Your task to perform on an android device: Open Google Chrome and click the shortcut for Amazon.com Image 0: 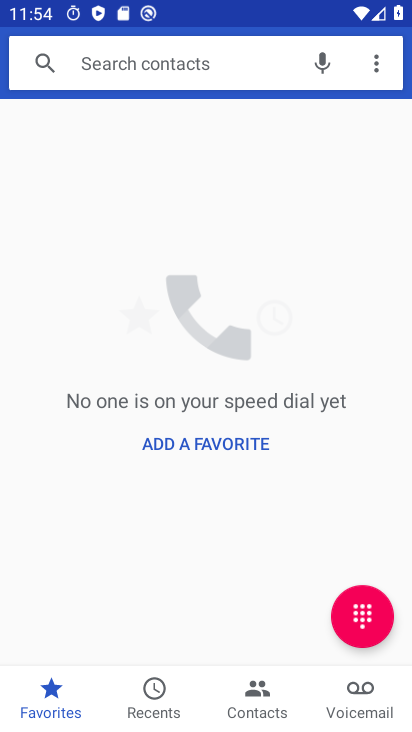
Step 0: press home button
Your task to perform on an android device: Open Google Chrome and click the shortcut for Amazon.com Image 1: 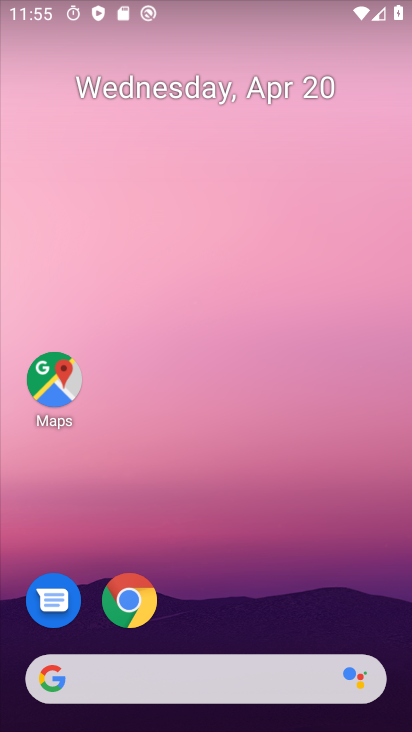
Step 1: drag from (361, 462) to (314, 99)
Your task to perform on an android device: Open Google Chrome and click the shortcut for Amazon.com Image 2: 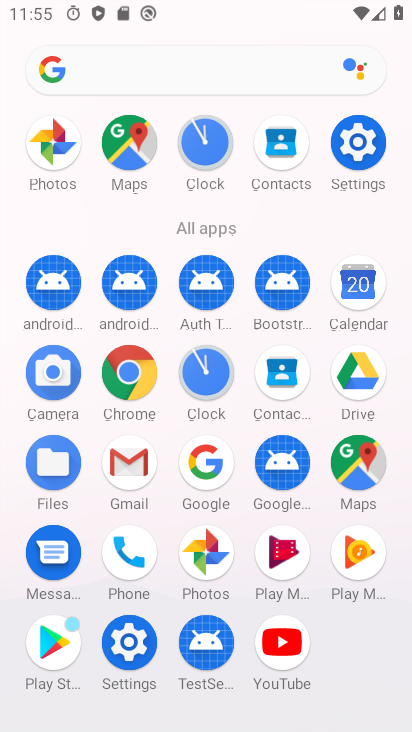
Step 2: click (126, 373)
Your task to perform on an android device: Open Google Chrome and click the shortcut for Amazon.com Image 3: 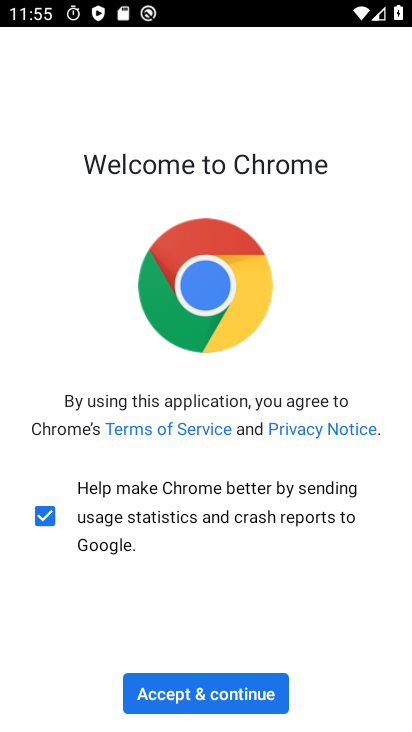
Step 3: click (233, 696)
Your task to perform on an android device: Open Google Chrome and click the shortcut for Amazon.com Image 4: 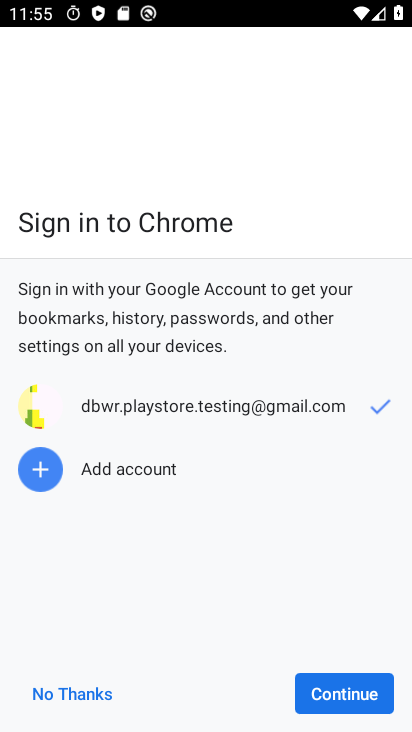
Step 4: click (331, 691)
Your task to perform on an android device: Open Google Chrome and click the shortcut for Amazon.com Image 5: 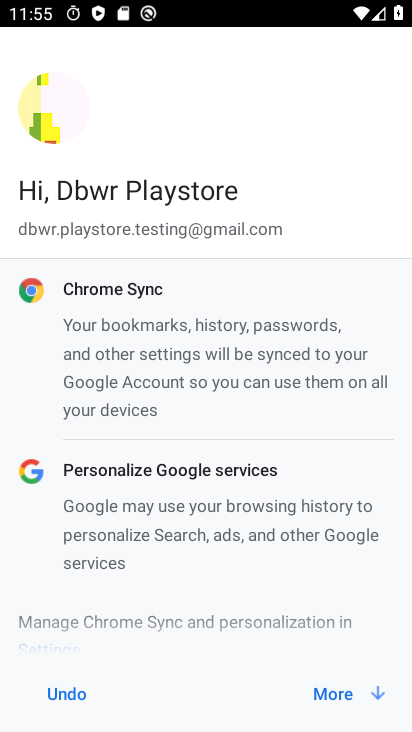
Step 5: click (331, 691)
Your task to perform on an android device: Open Google Chrome and click the shortcut for Amazon.com Image 6: 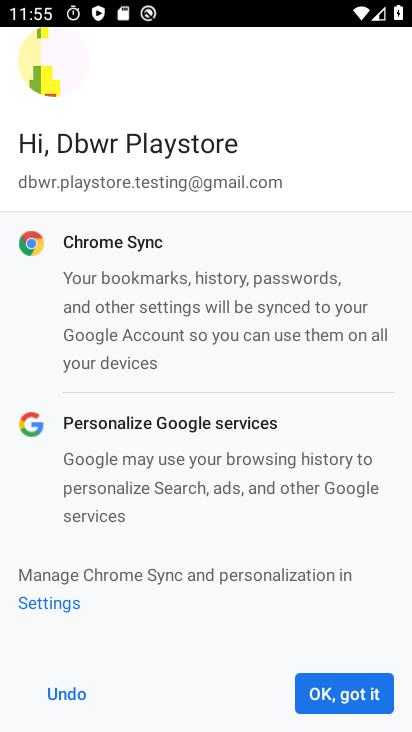
Step 6: click (331, 691)
Your task to perform on an android device: Open Google Chrome and click the shortcut for Amazon.com Image 7: 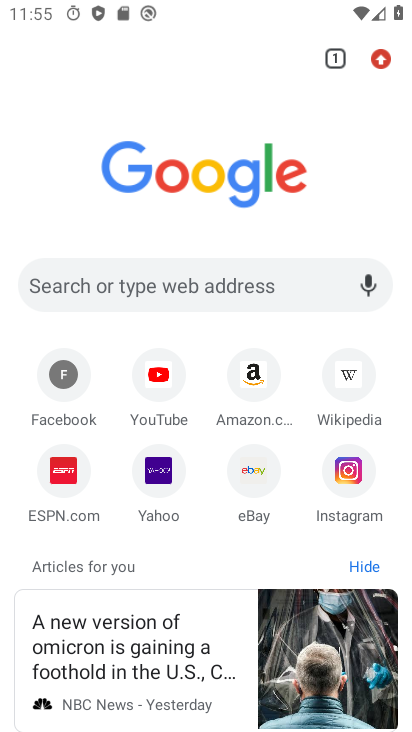
Step 7: click (228, 283)
Your task to perform on an android device: Open Google Chrome and click the shortcut for Amazon.com Image 8: 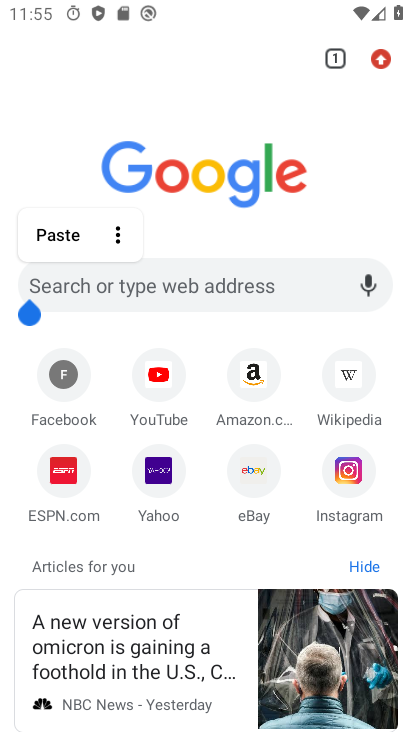
Step 8: click (211, 292)
Your task to perform on an android device: Open Google Chrome and click the shortcut for Amazon.com Image 9: 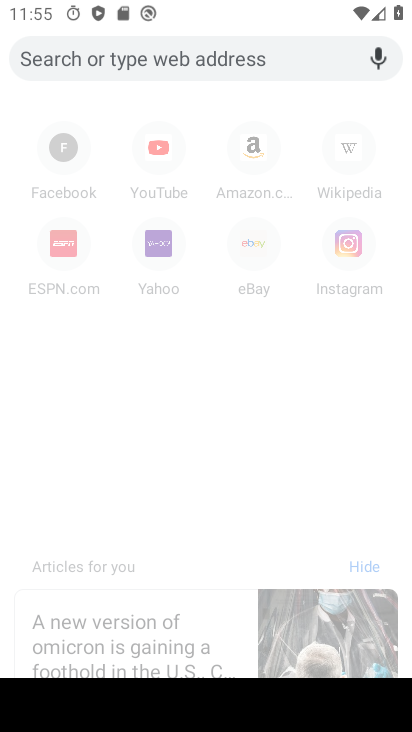
Step 9: click (257, 153)
Your task to perform on an android device: Open Google Chrome and click the shortcut for Amazon.com Image 10: 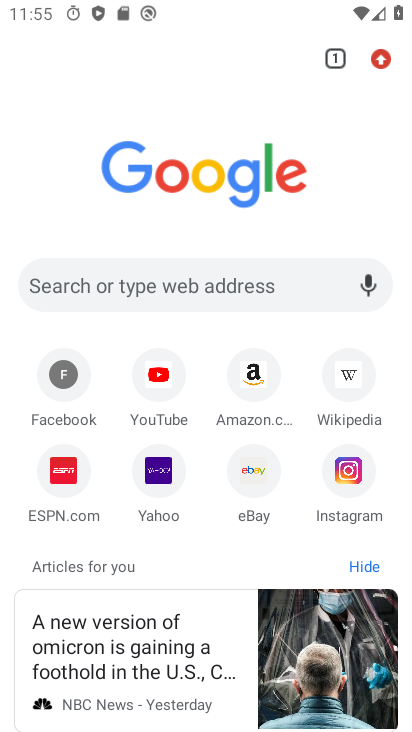
Step 10: click (256, 412)
Your task to perform on an android device: Open Google Chrome and click the shortcut for Amazon.com Image 11: 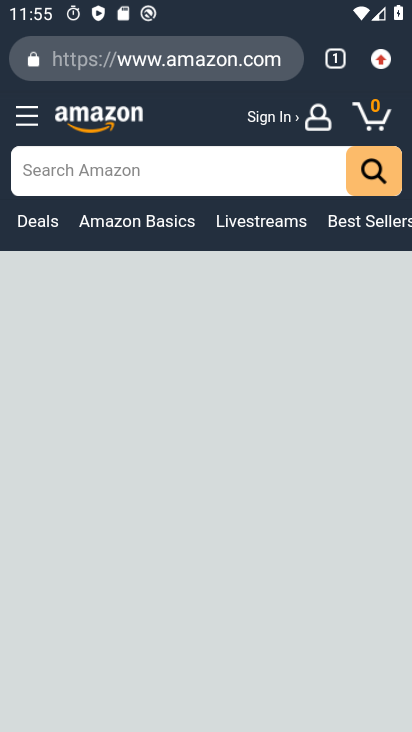
Step 11: task complete